Your task to perform on an android device: move an email to a new category in the gmail app Image 0: 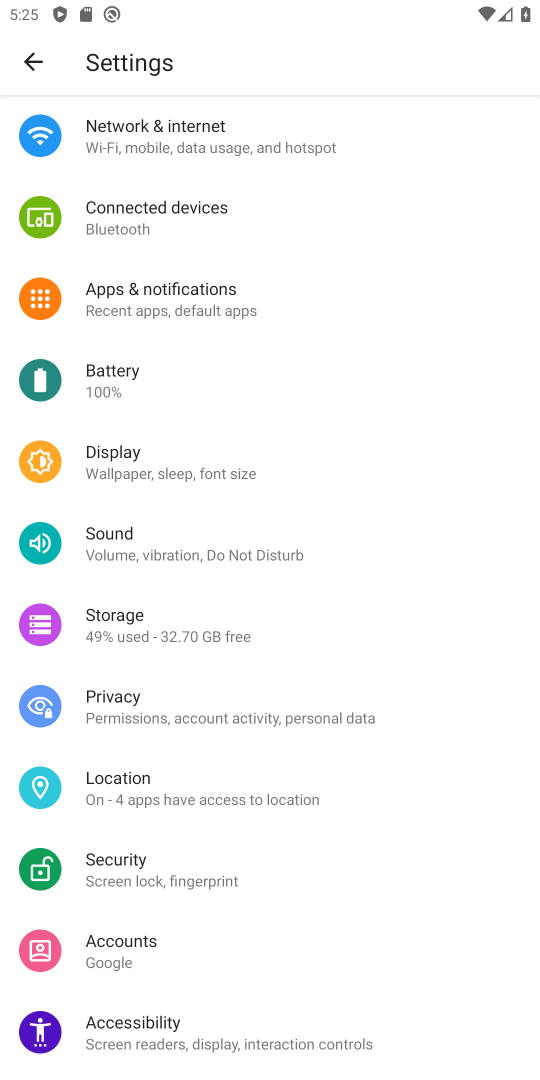
Step 0: press home button
Your task to perform on an android device: move an email to a new category in the gmail app Image 1: 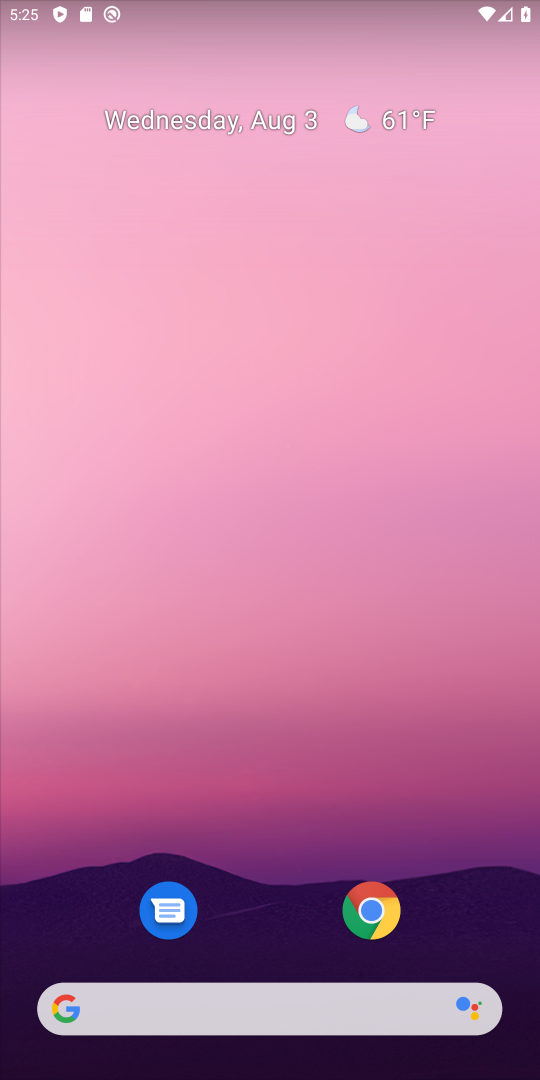
Step 1: drag from (276, 932) to (430, 121)
Your task to perform on an android device: move an email to a new category in the gmail app Image 2: 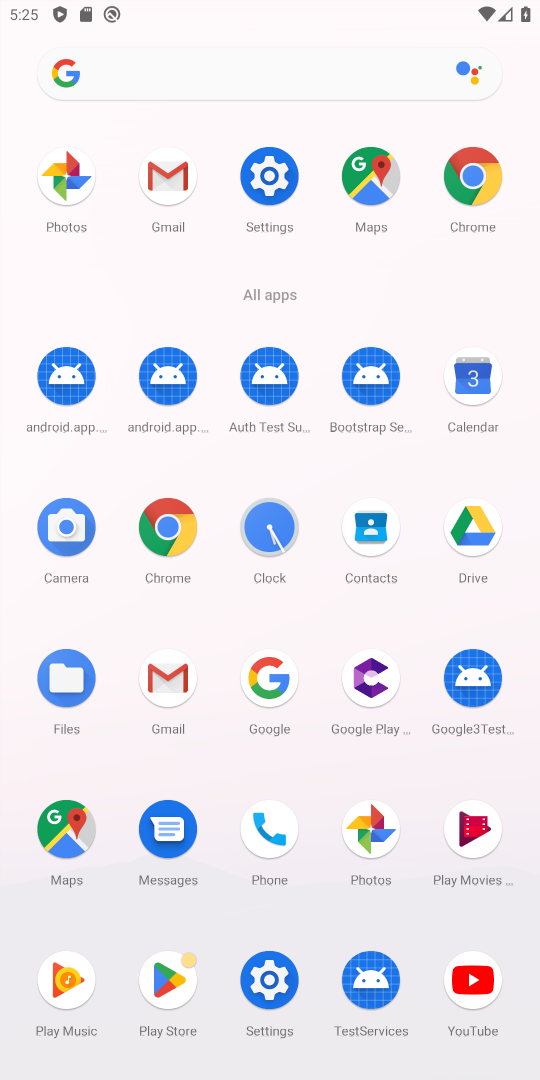
Step 2: click (172, 678)
Your task to perform on an android device: move an email to a new category in the gmail app Image 3: 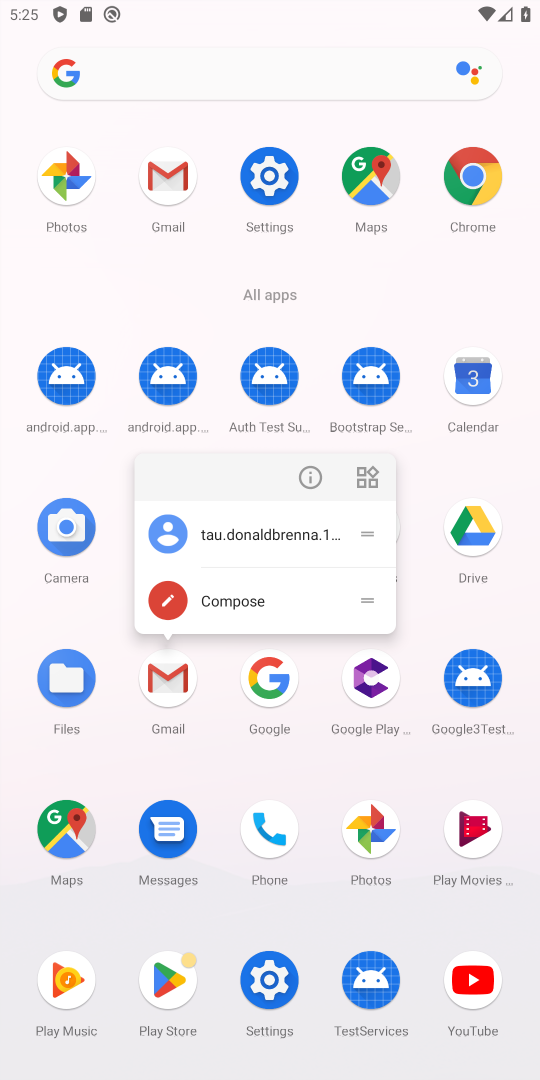
Step 3: click (172, 678)
Your task to perform on an android device: move an email to a new category in the gmail app Image 4: 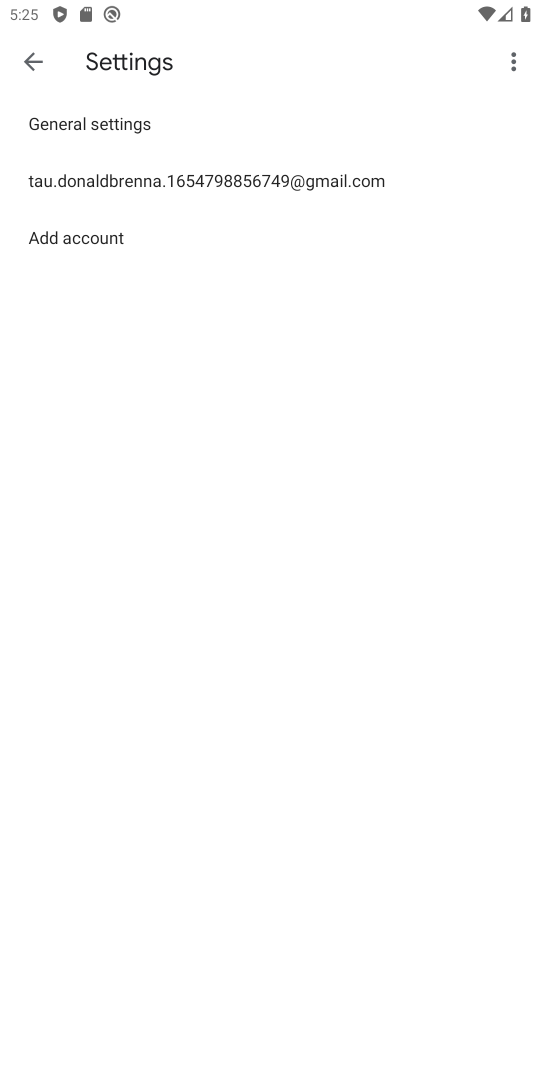
Step 4: click (40, 55)
Your task to perform on an android device: move an email to a new category in the gmail app Image 5: 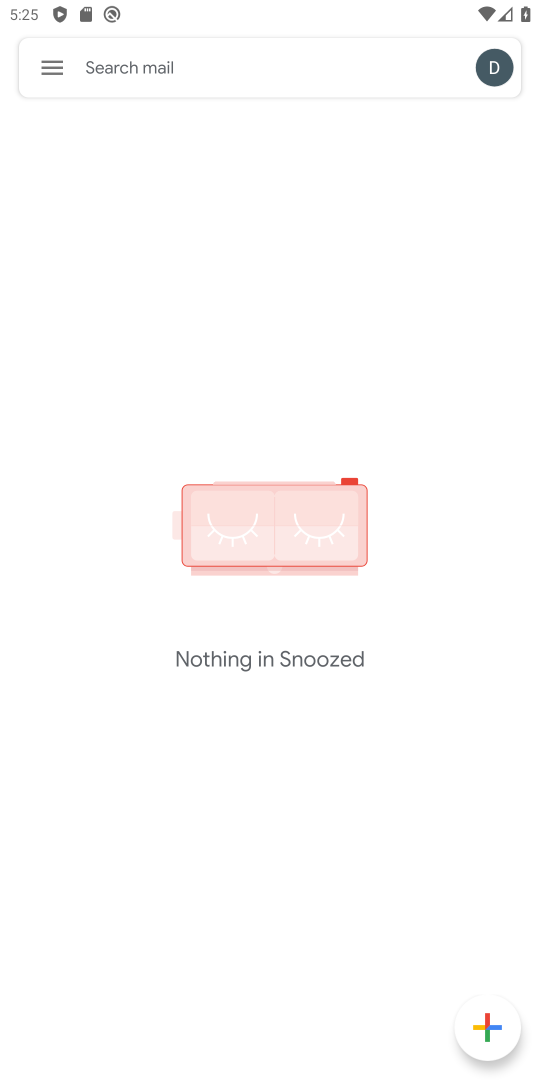
Step 5: click (51, 56)
Your task to perform on an android device: move an email to a new category in the gmail app Image 6: 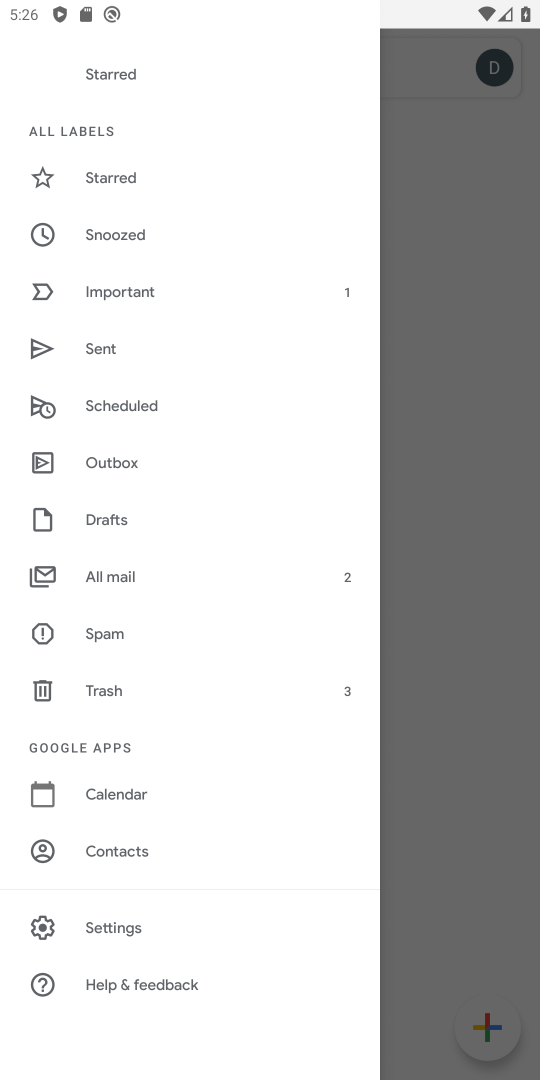
Step 6: click (452, 555)
Your task to perform on an android device: move an email to a new category in the gmail app Image 7: 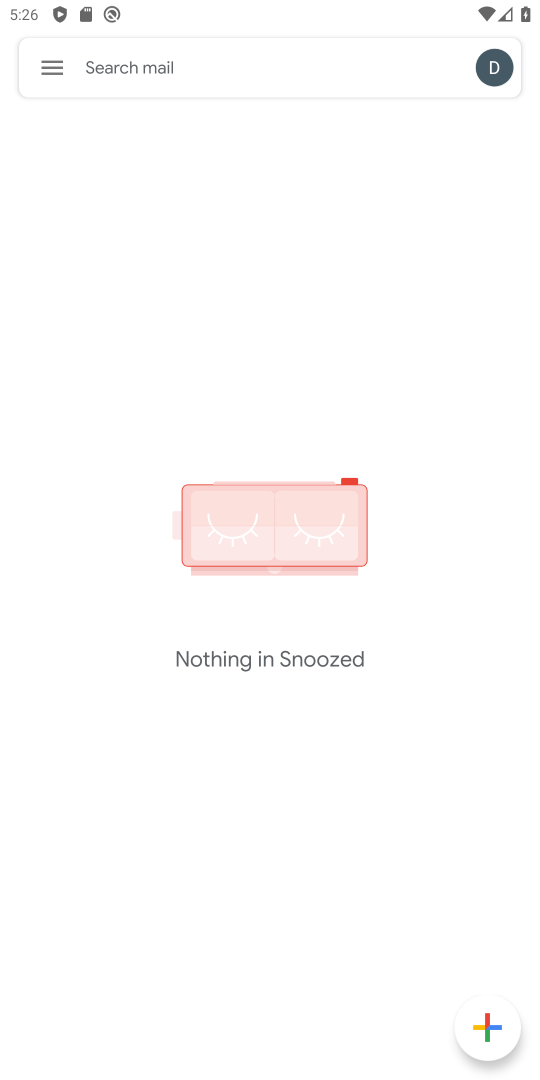
Step 7: task complete